Your task to perform on an android device: check data usage Image 0: 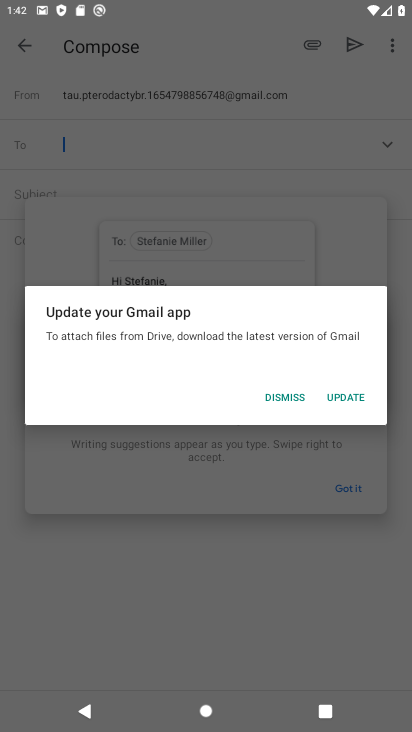
Step 0: press home button
Your task to perform on an android device: check data usage Image 1: 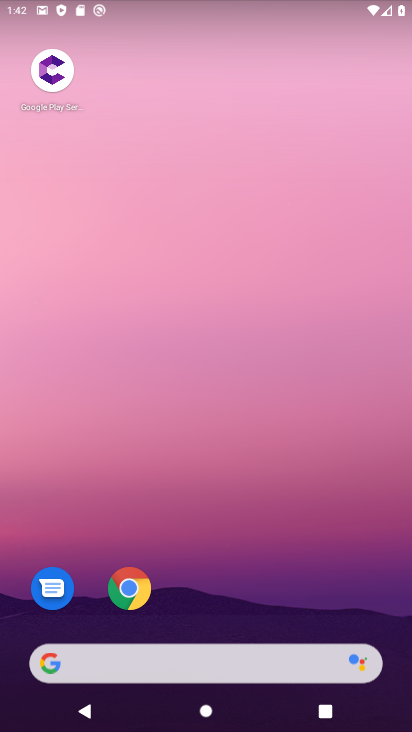
Step 1: drag from (208, 607) to (151, 153)
Your task to perform on an android device: check data usage Image 2: 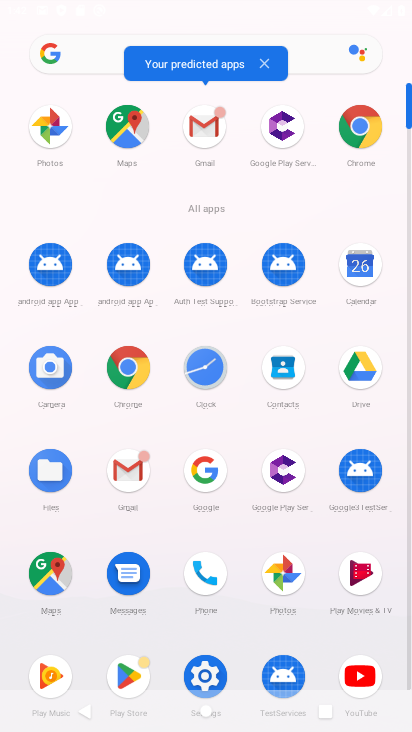
Step 2: click (209, 670)
Your task to perform on an android device: check data usage Image 3: 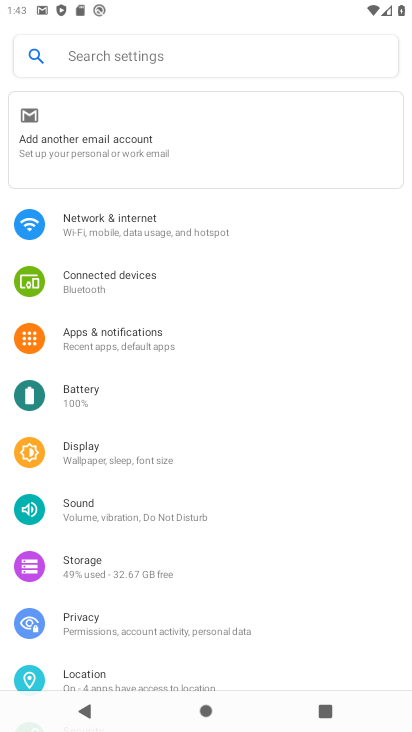
Step 3: click (126, 222)
Your task to perform on an android device: check data usage Image 4: 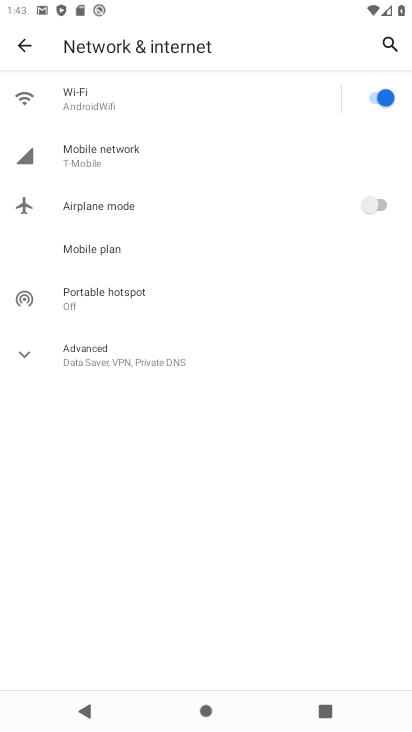
Step 4: click (130, 100)
Your task to perform on an android device: check data usage Image 5: 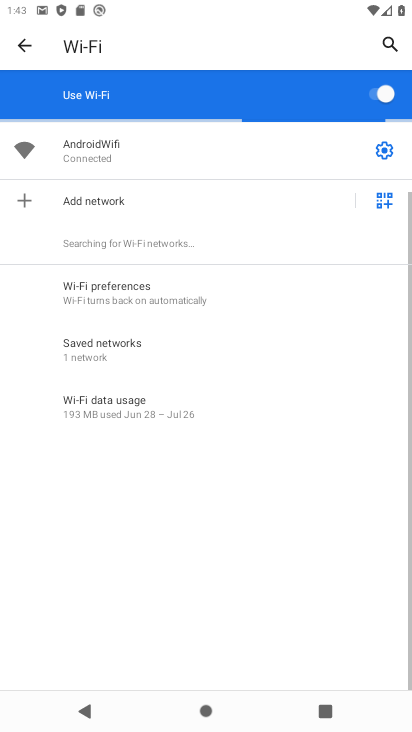
Step 5: click (192, 410)
Your task to perform on an android device: check data usage Image 6: 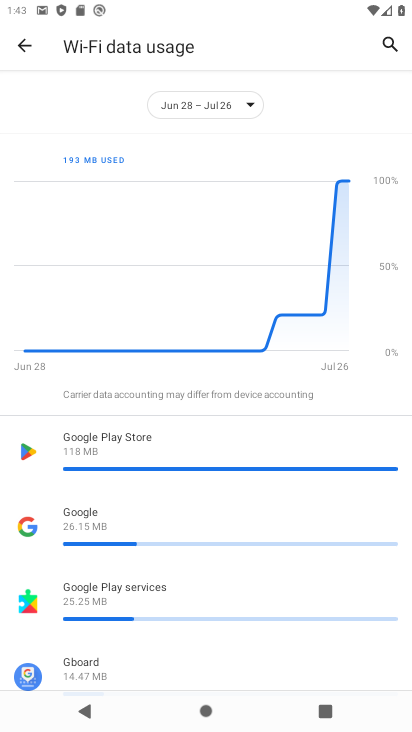
Step 6: task complete